Your task to perform on an android device: manage bookmarks in the chrome app Image 0: 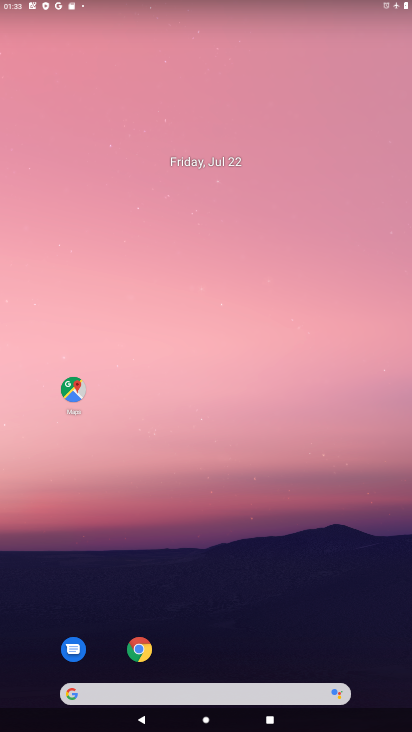
Step 0: drag from (283, 631) to (274, 137)
Your task to perform on an android device: manage bookmarks in the chrome app Image 1: 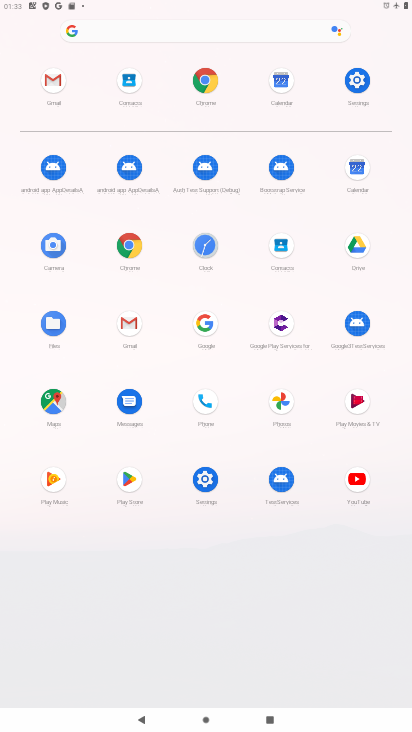
Step 1: click (131, 243)
Your task to perform on an android device: manage bookmarks in the chrome app Image 2: 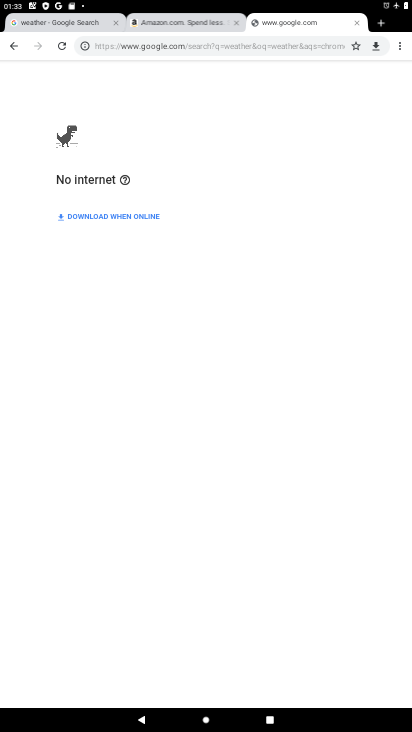
Step 2: drag from (402, 39) to (325, 130)
Your task to perform on an android device: manage bookmarks in the chrome app Image 3: 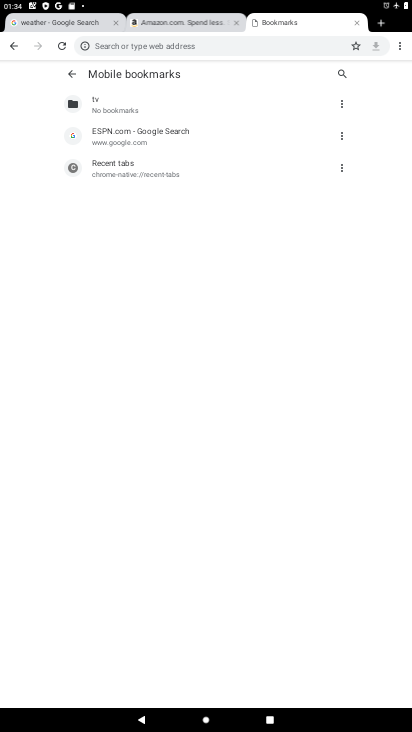
Step 3: click (341, 168)
Your task to perform on an android device: manage bookmarks in the chrome app Image 4: 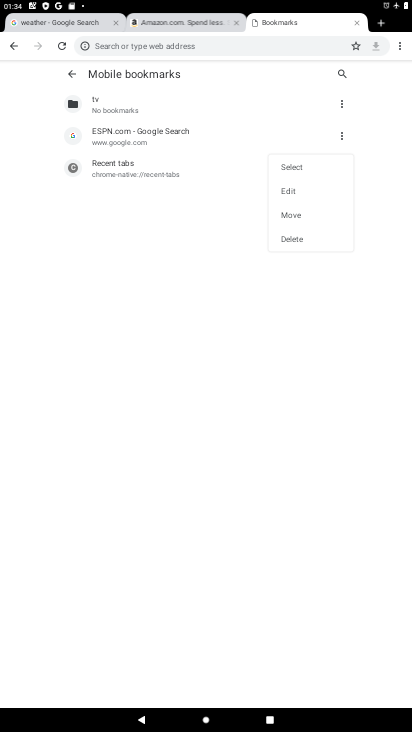
Step 4: click (297, 189)
Your task to perform on an android device: manage bookmarks in the chrome app Image 5: 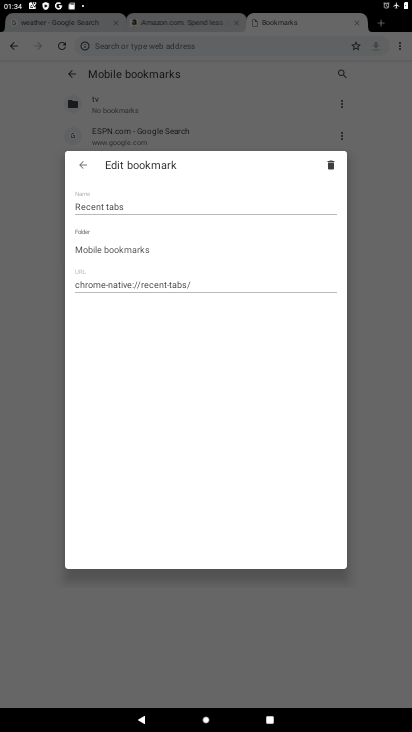
Step 5: click (196, 205)
Your task to perform on an android device: manage bookmarks in the chrome app Image 6: 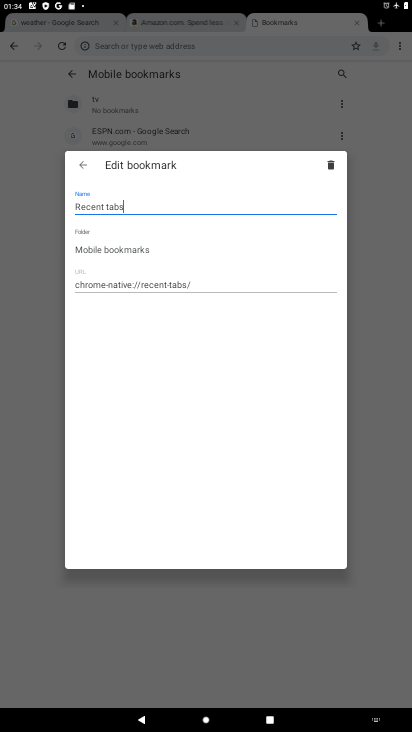
Step 6: type " hope"
Your task to perform on an android device: manage bookmarks in the chrome app Image 7: 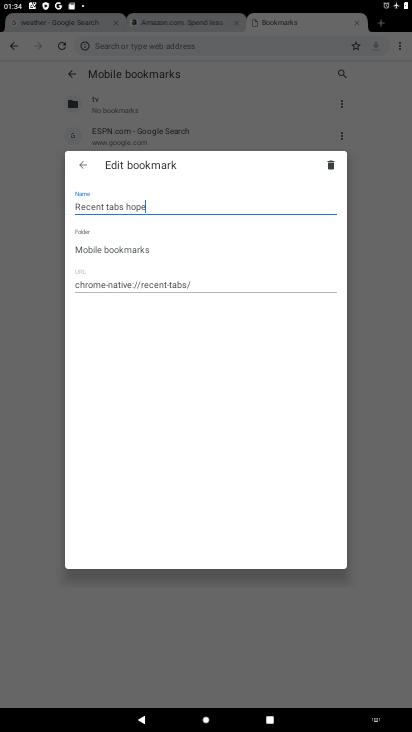
Step 7: click (82, 166)
Your task to perform on an android device: manage bookmarks in the chrome app Image 8: 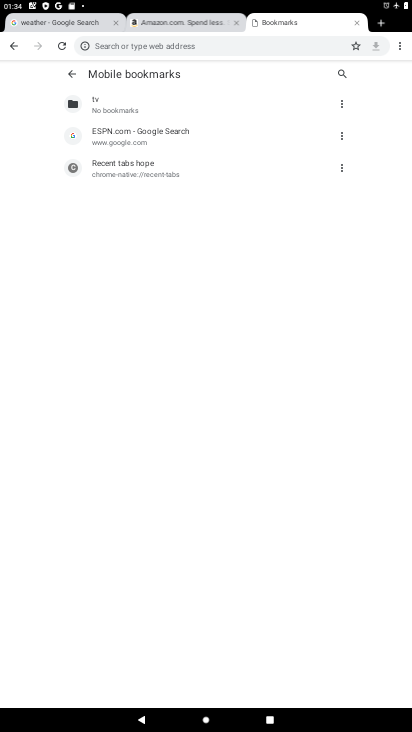
Step 8: task complete